Your task to perform on an android device: toggle airplane mode Image 0: 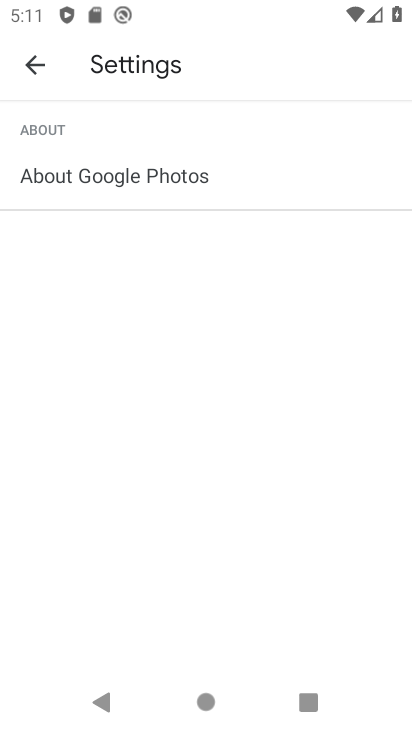
Step 0: press home button
Your task to perform on an android device: toggle airplane mode Image 1: 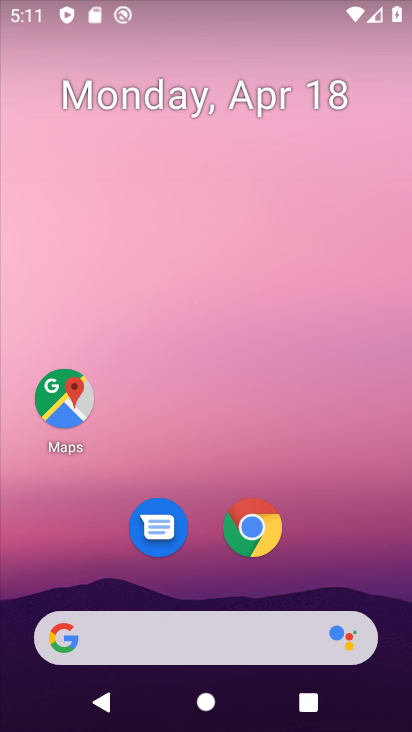
Step 1: drag from (222, 609) to (208, 261)
Your task to perform on an android device: toggle airplane mode Image 2: 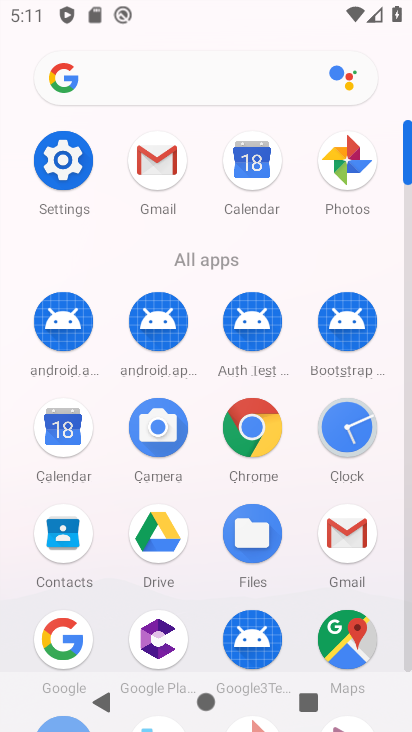
Step 2: click (57, 158)
Your task to perform on an android device: toggle airplane mode Image 3: 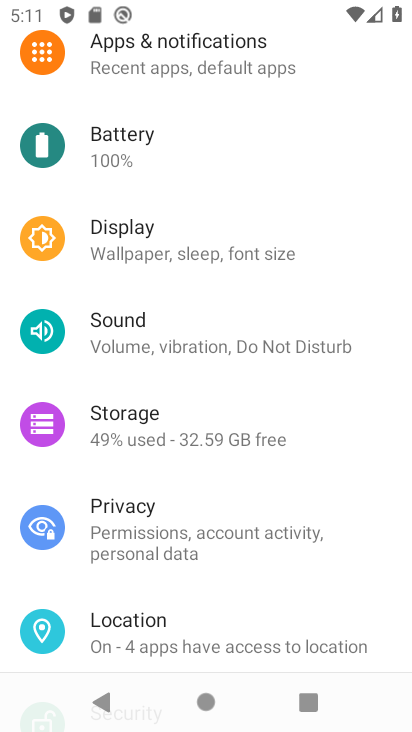
Step 3: drag from (246, 98) to (290, 561)
Your task to perform on an android device: toggle airplane mode Image 4: 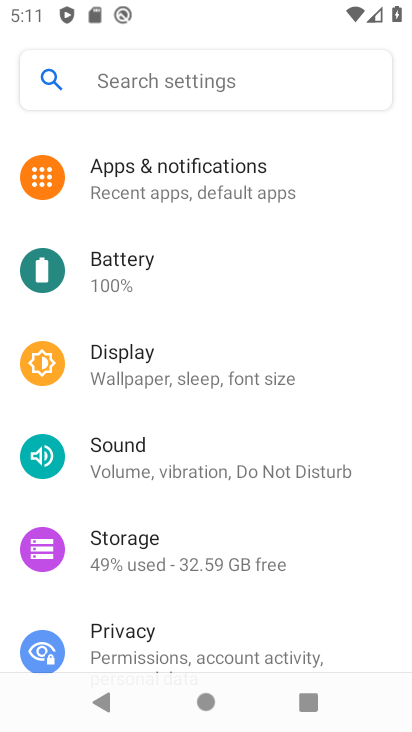
Step 4: drag from (249, 190) to (250, 453)
Your task to perform on an android device: toggle airplane mode Image 5: 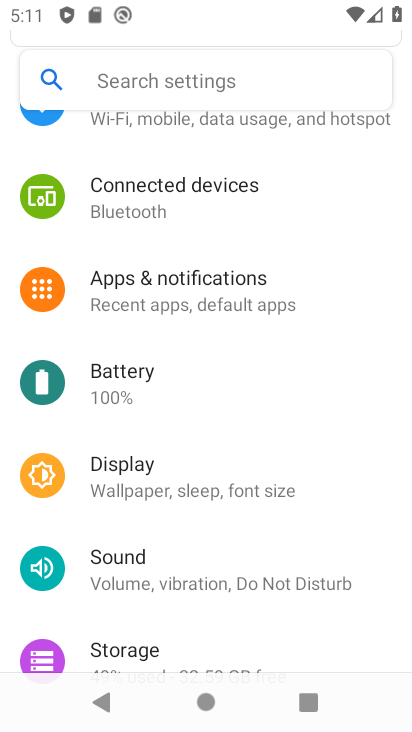
Step 5: click (222, 114)
Your task to perform on an android device: toggle airplane mode Image 6: 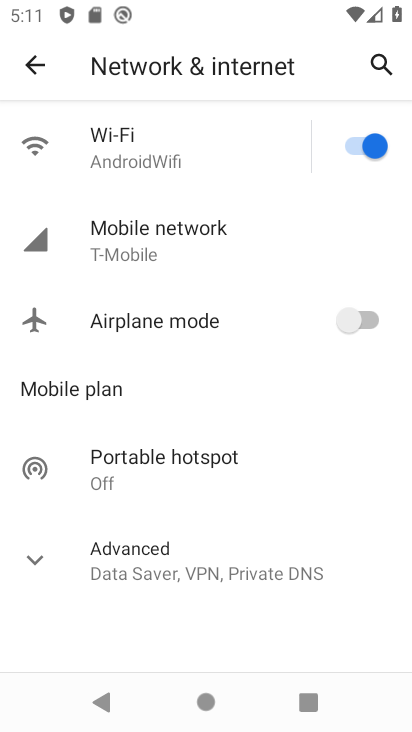
Step 6: click (370, 324)
Your task to perform on an android device: toggle airplane mode Image 7: 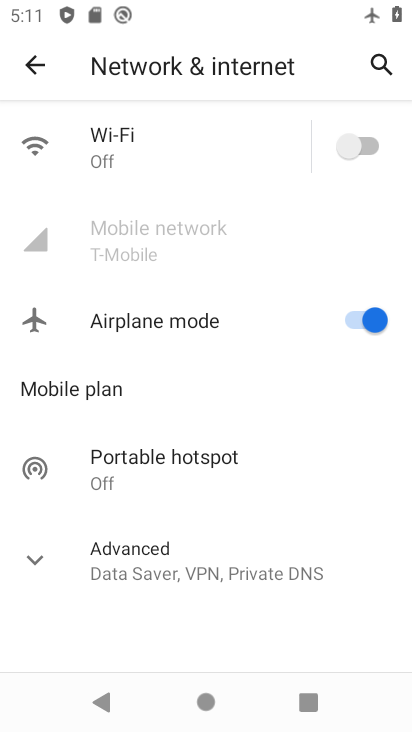
Step 7: task complete